Your task to perform on an android device: Open settings Image 0: 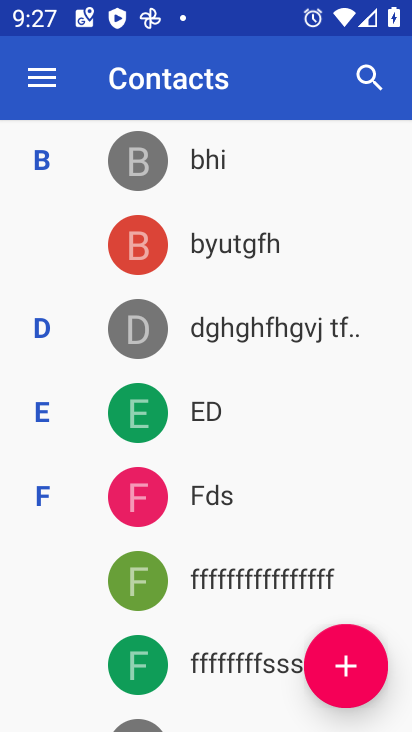
Step 0: press home button
Your task to perform on an android device: Open settings Image 1: 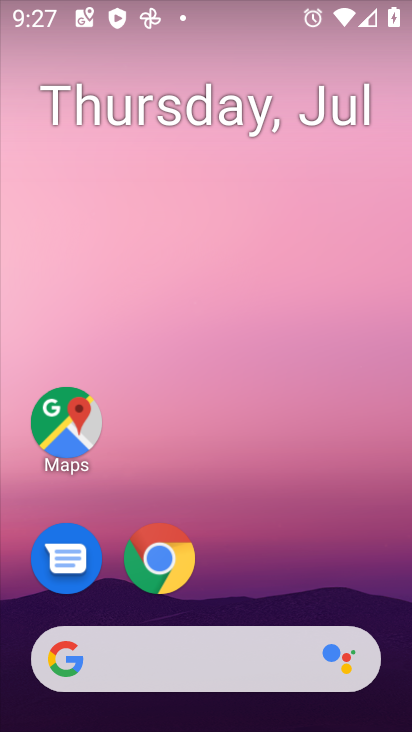
Step 1: drag from (368, 566) to (358, 128)
Your task to perform on an android device: Open settings Image 2: 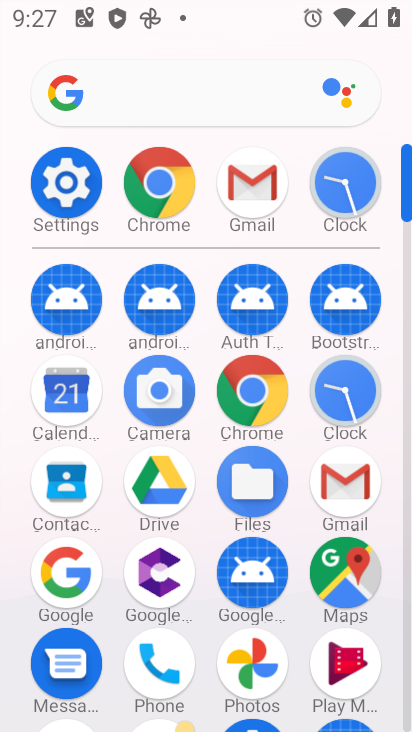
Step 2: click (63, 199)
Your task to perform on an android device: Open settings Image 3: 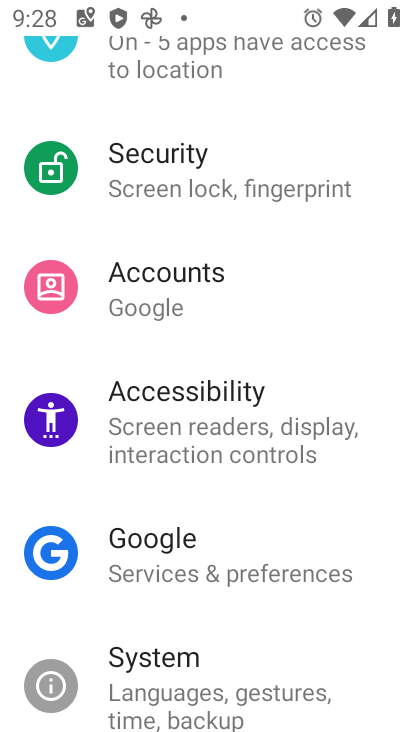
Step 3: task complete